Your task to perform on an android device: turn on location history Image 0: 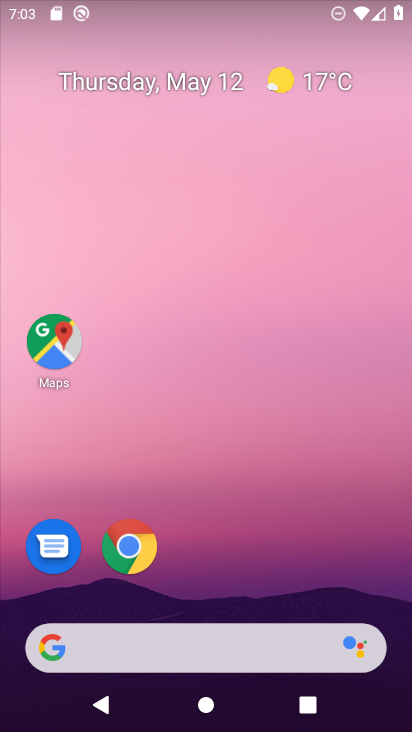
Step 0: click (47, 346)
Your task to perform on an android device: turn on location history Image 1: 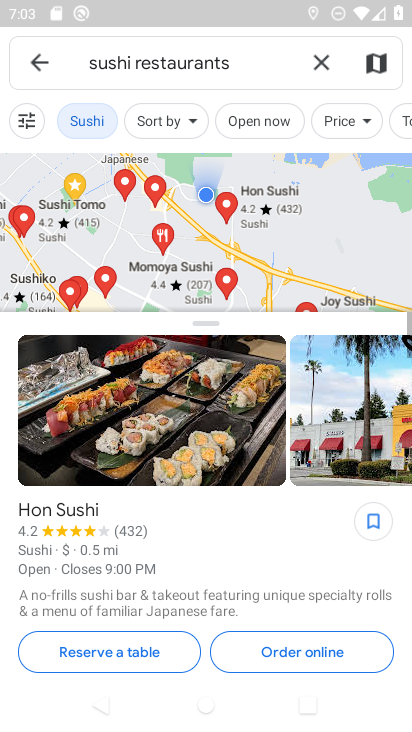
Step 1: click (325, 55)
Your task to perform on an android device: turn on location history Image 2: 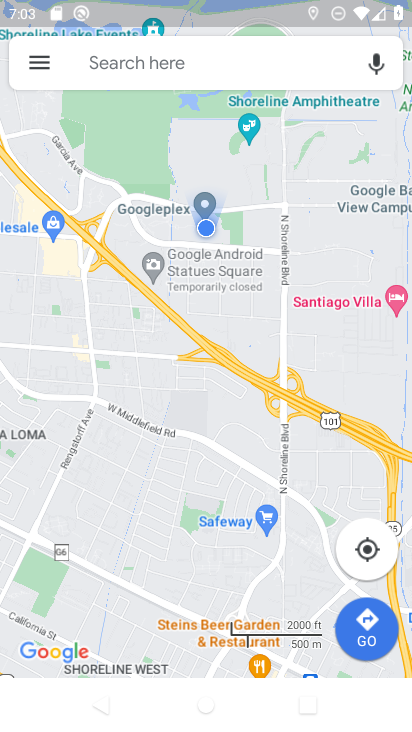
Step 2: click (44, 62)
Your task to perform on an android device: turn on location history Image 3: 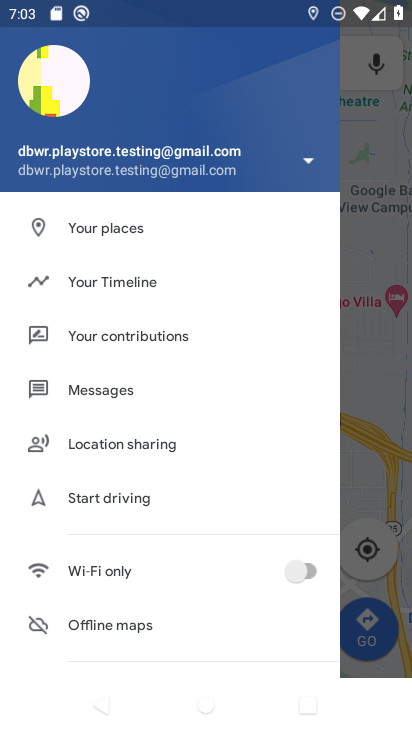
Step 3: click (125, 282)
Your task to perform on an android device: turn on location history Image 4: 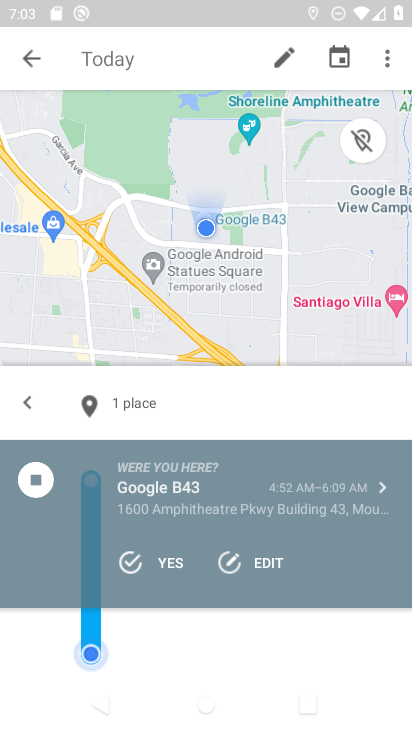
Step 4: click (389, 60)
Your task to perform on an android device: turn on location history Image 5: 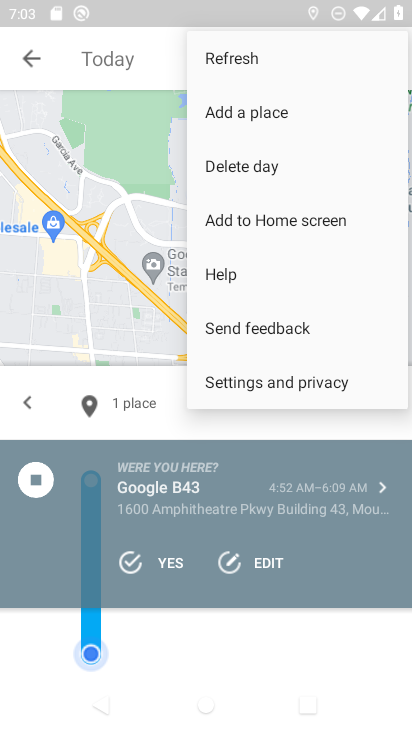
Step 5: click (296, 380)
Your task to perform on an android device: turn on location history Image 6: 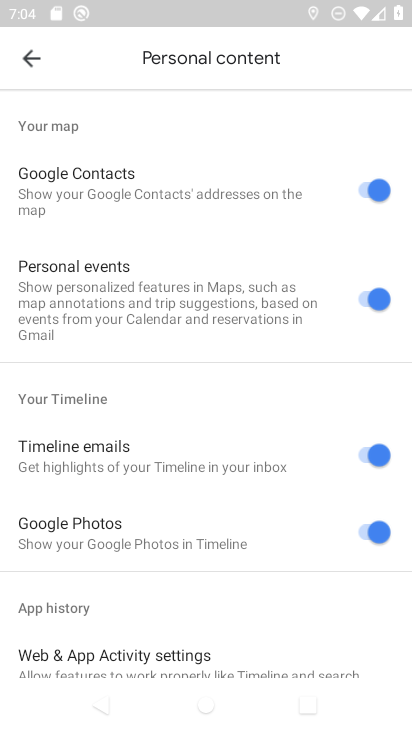
Step 6: drag from (245, 566) to (207, 279)
Your task to perform on an android device: turn on location history Image 7: 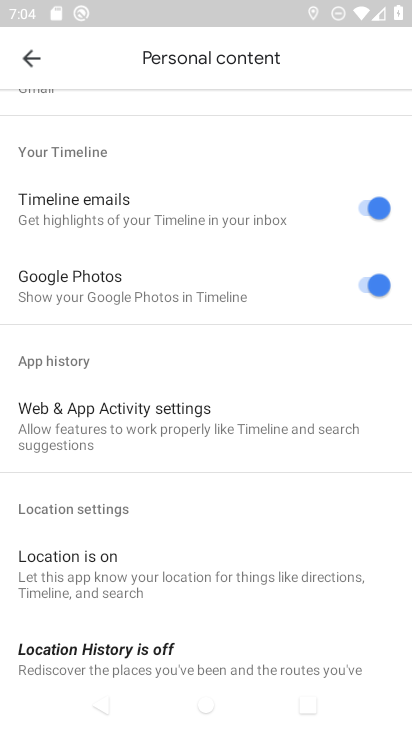
Step 7: click (120, 646)
Your task to perform on an android device: turn on location history Image 8: 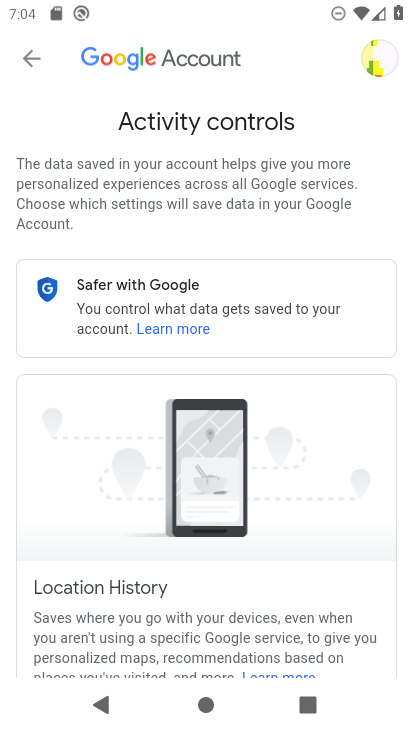
Step 8: drag from (294, 565) to (234, 236)
Your task to perform on an android device: turn on location history Image 9: 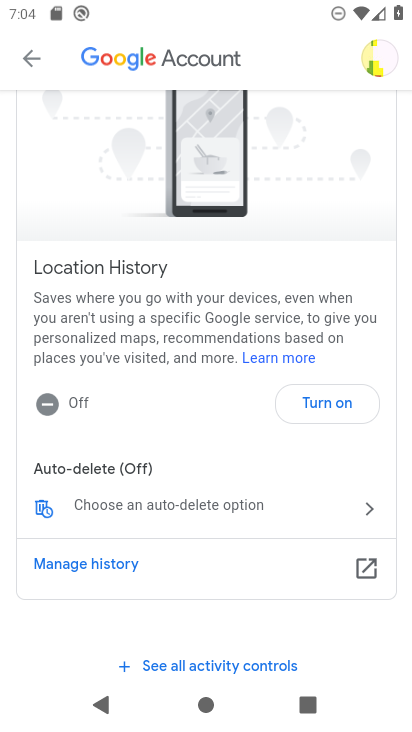
Step 9: click (319, 403)
Your task to perform on an android device: turn on location history Image 10: 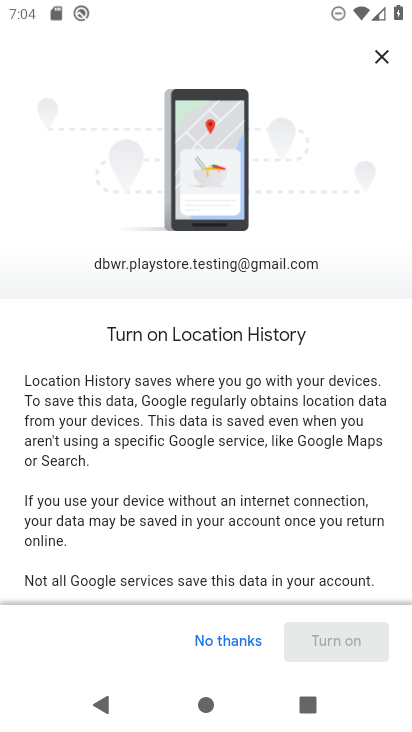
Step 10: drag from (324, 503) to (244, 179)
Your task to perform on an android device: turn on location history Image 11: 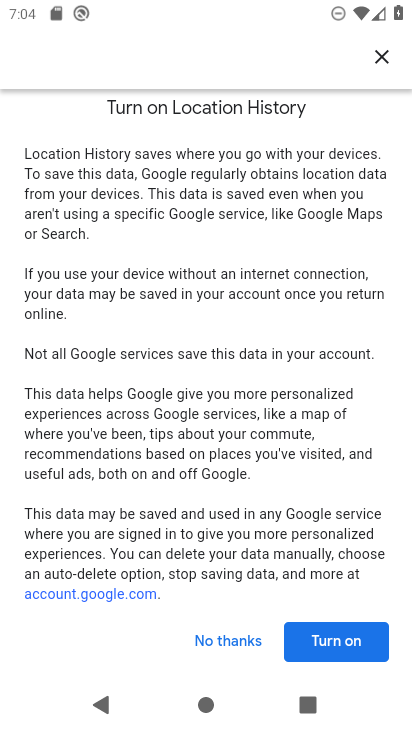
Step 11: click (337, 642)
Your task to perform on an android device: turn on location history Image 12: 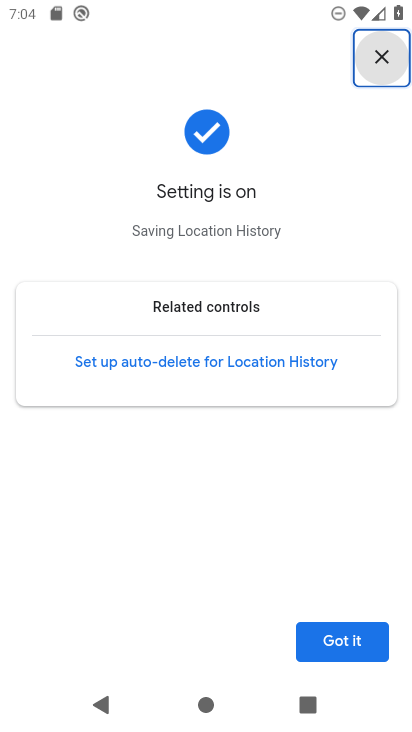
Step 12: click (332, 651)
Your task to perform on an android device: turn on location history Image 13: 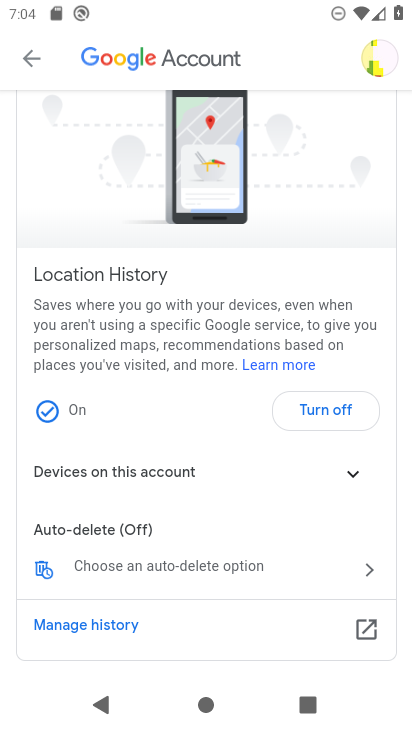
Step 13: task complete